Your task to perform on an android device: Open CNN.com Image 0: 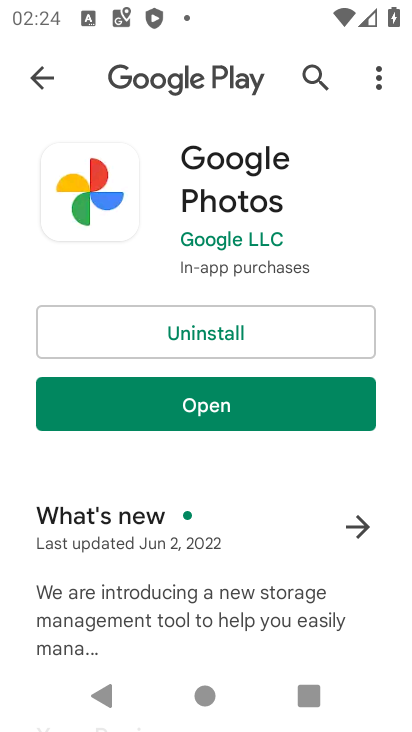
Step 0: press home button
Your task to perform on an android device: Open CNN.com Image 1: 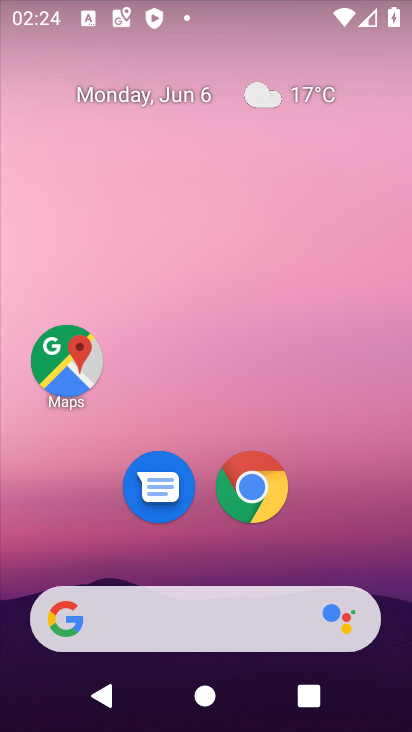
Step 1: click (252, 486)
Your task to perform on an android device: Open CNN.com Image 2: 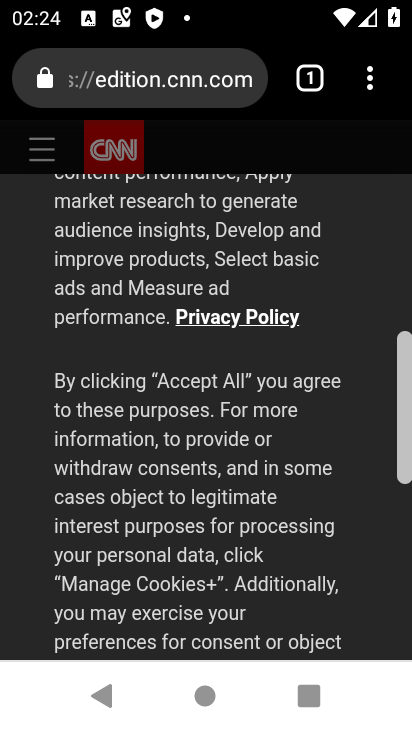
Step 2: task complete